Your task to perform on an android device: Show me popular games on the Play Store Image 0: 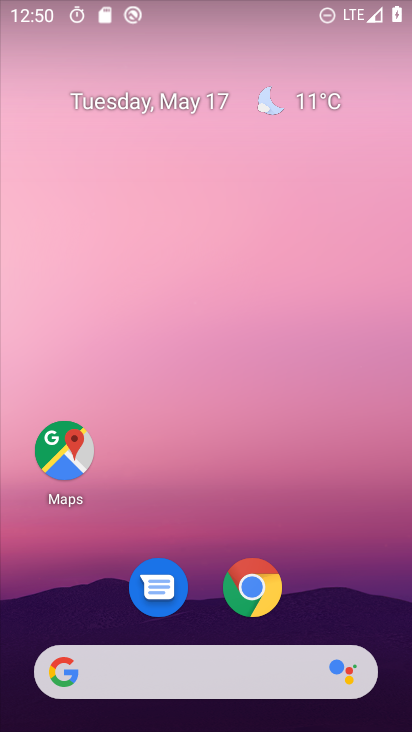
Step 0: drag from (187, 629) to (262, 257)
Your task to perform on an android device: Show me popular games on the Play Store Image 1: 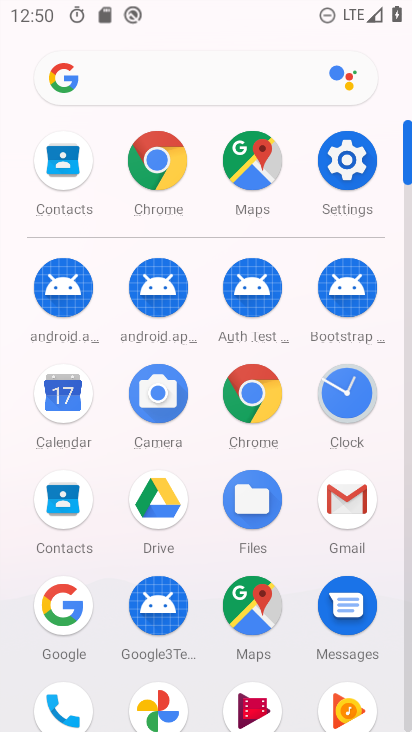
Step 1: drag from (213, 663) to (220, 208)
Your task to perform on an android device: Show me popular games on the Play Store Image 2: 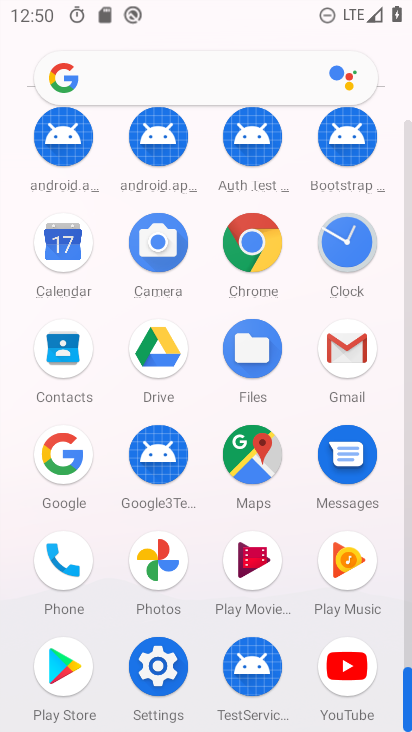
Step 2: click (64, 666)
Your task to perform on an android device: Show me popular games on the Play Store Image 3: 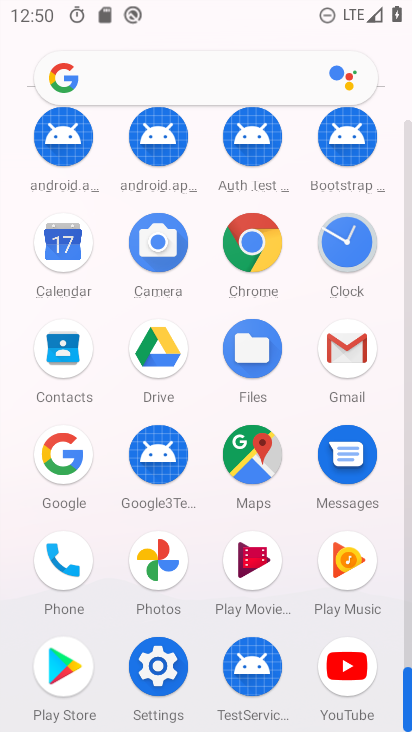
Step 3: click (63, 666)
Your task to perform on an android device: Show me popular games on the Play Store Image 4: 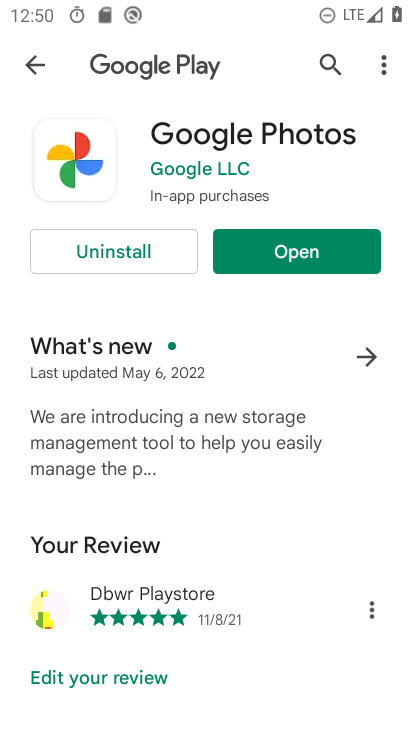
Step 4: click (37, 76)
Your task to perform on an android device: Show me popular games on the Play Store Image 5: 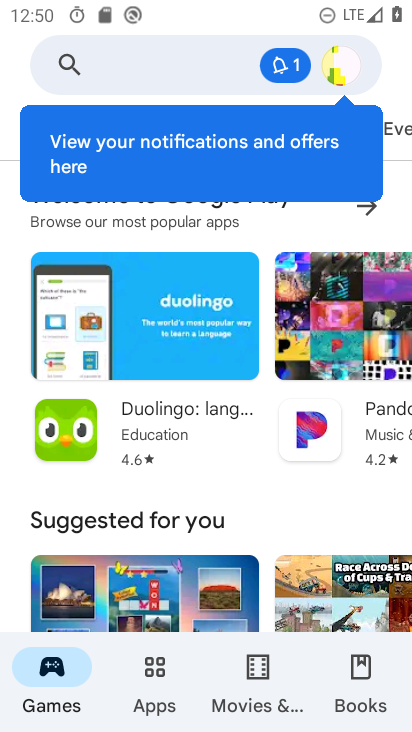
Step 5: drag from (274, 509) to (316, 37)
Your task to perform on an android device: Show me popular games on the Play Store Image 6: 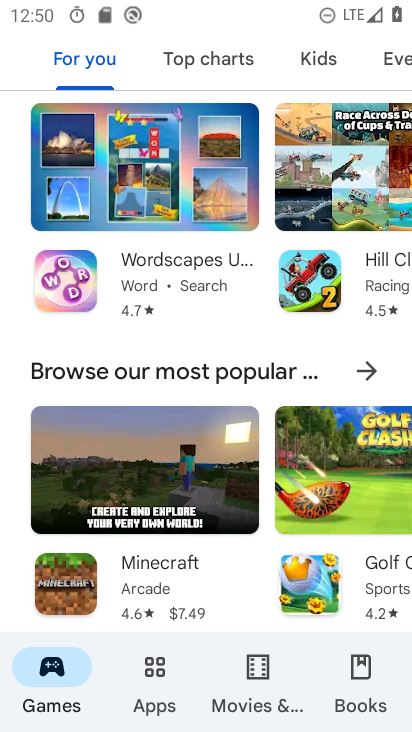
Step 6: click (369, 375)
Your task to perform on an android device: Show me popular games on the Play Store Image 7: 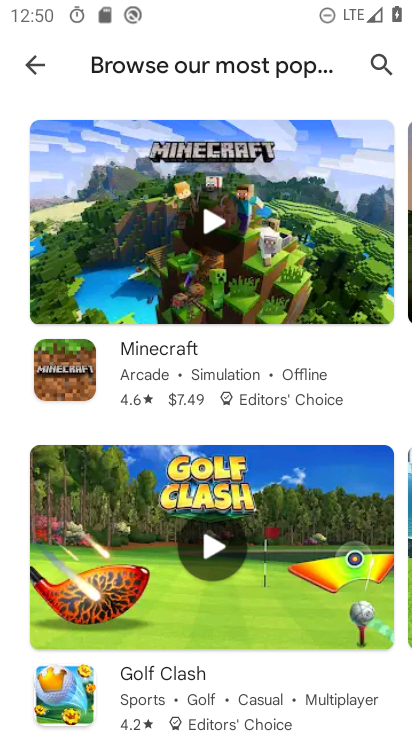
Step 7: drag from (266, 668) to (328, 299)
Your task to perform on an android device: Show me popular games on the Play Store Image 8: 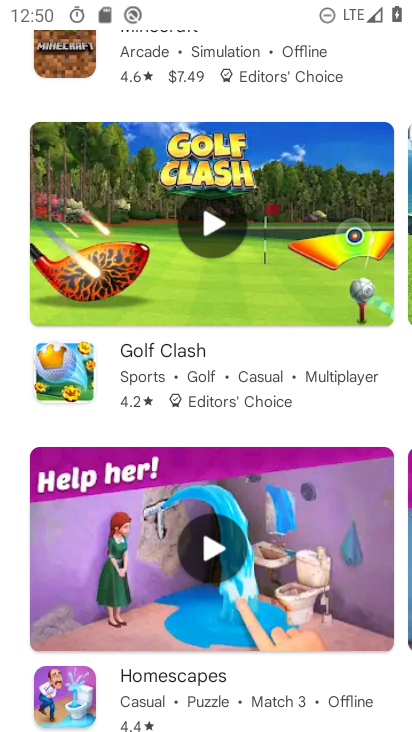
Step 8: click (278, 287)
Your task to perform on an android device: Show me popular games on the Play Store Image 9: 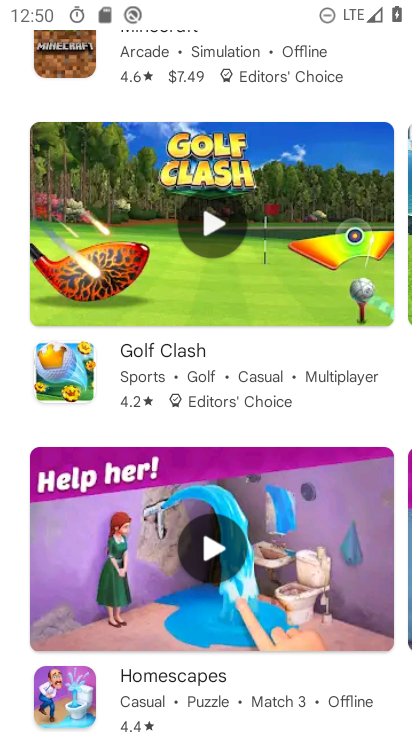
Step 9: drag from (277, 100) to (291, 552)
Your task to perform on an android device: Show me popular games on the Play Store Image 10: 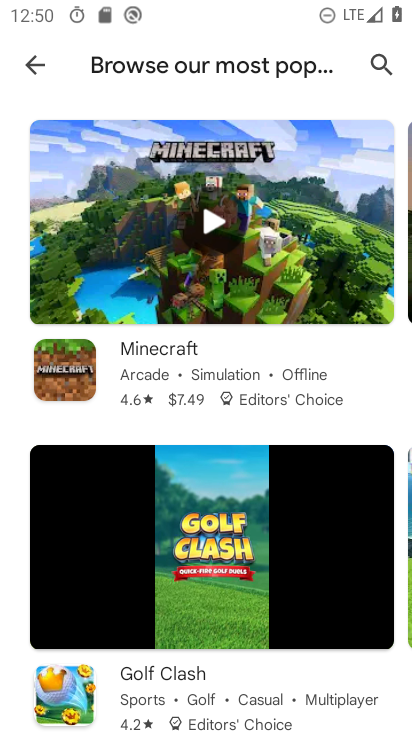
Step 10: drag from (292, 653) to (327, 241)
Your task to perform on an android device: Show me popular games on the Play Store Image 11: 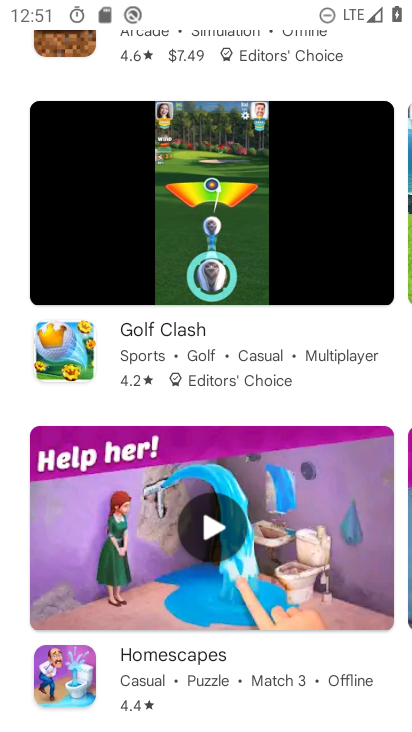
Step 11: drag from (200, 149) to (298, 727)
Your task to perform on an android device: Show me popular games on the Play Store Image 12: 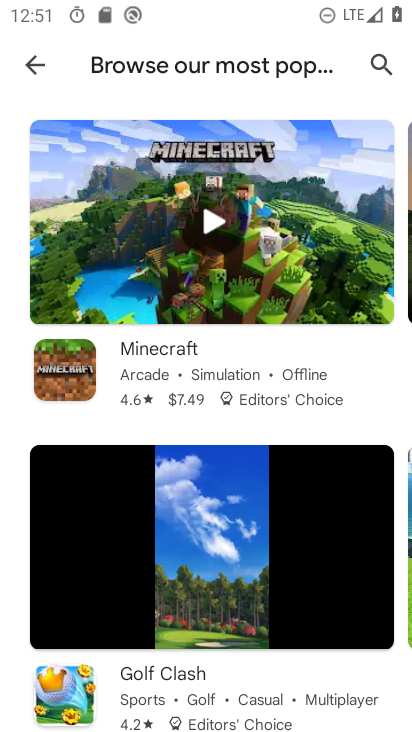
Step 12: click (36, 71)
Your task to perform on an android device: Show me popular games on the Play Store Image 13: 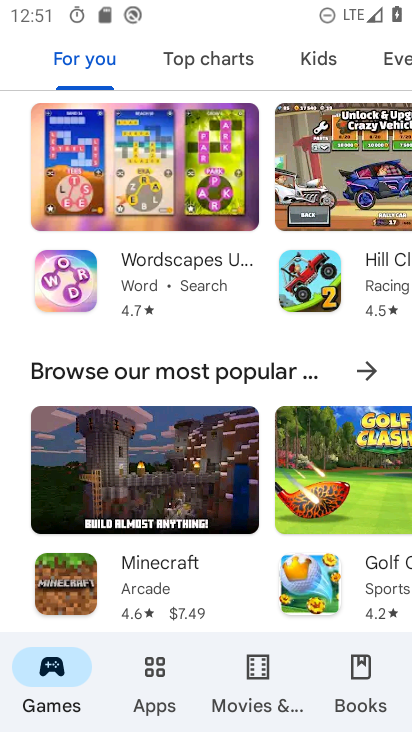
Step 13: click (376, 380)
Your task to perform on an android device: Show me popular games on the Play Store Image 14: 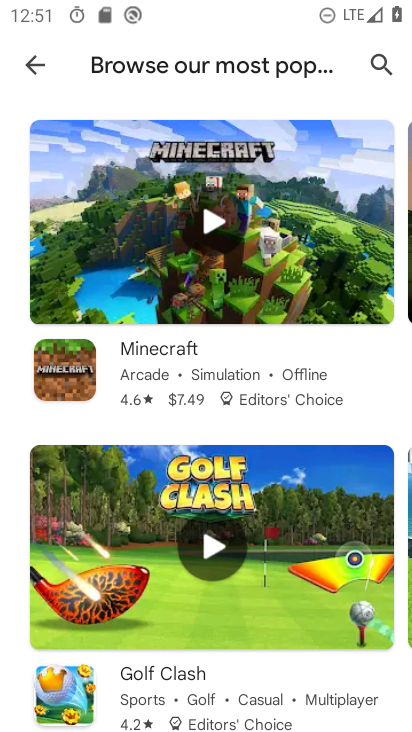
Step 14: drag from (330, 637) to (337, 277)
Your task to perform on an android device: Show me popular games on the Play Store Image 15: 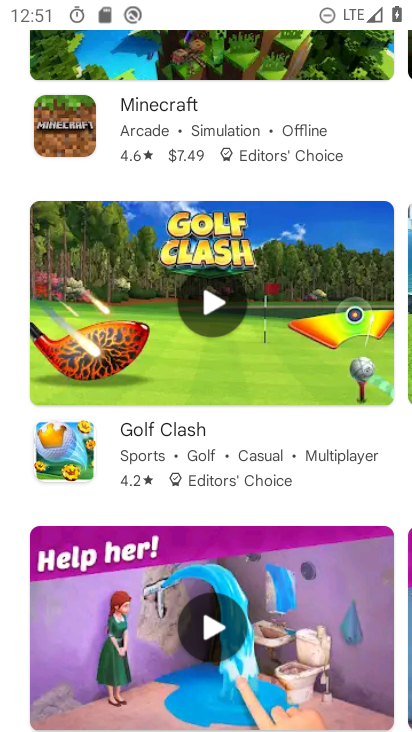
Step 15: click (294, 373)
Your task to perform on an android device: Show me popular games on the Play Store Image 16: 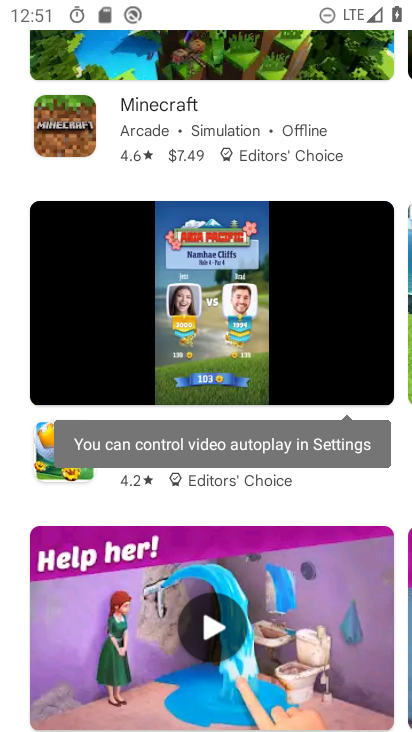
Step 16: task complete